Your task to perform on an android device: turn off smart reply in the gmail app Image 0: 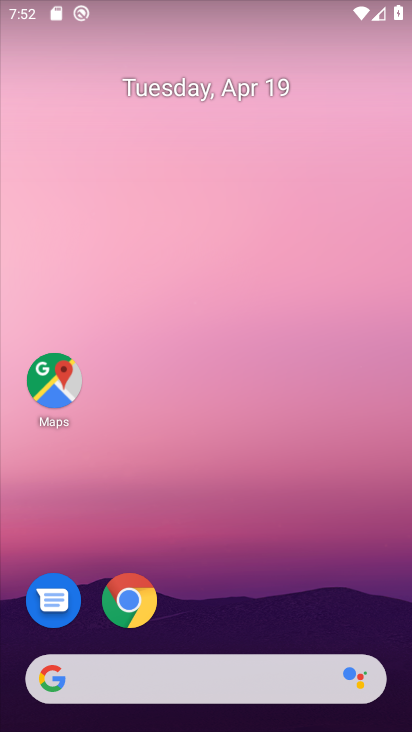
Step 0: drag from (362, 592) to (349, 95)
Your task to perform on an android device: turn off smart reply in the gmail app Image 1: 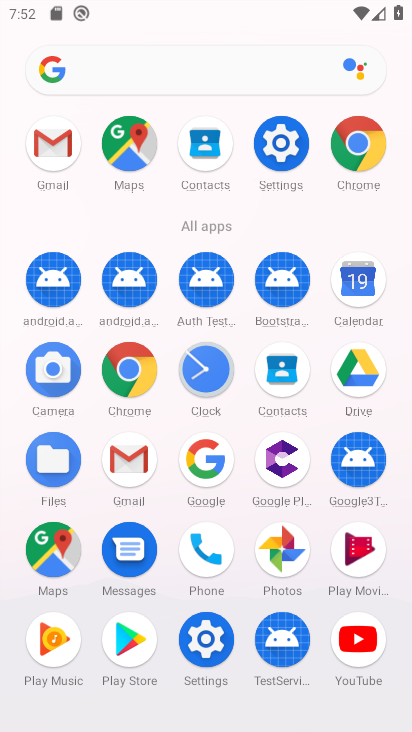
Step 1: click (133, 456)
Your task to perform on an android device: turn off smart reply in the gmail app Image 2: 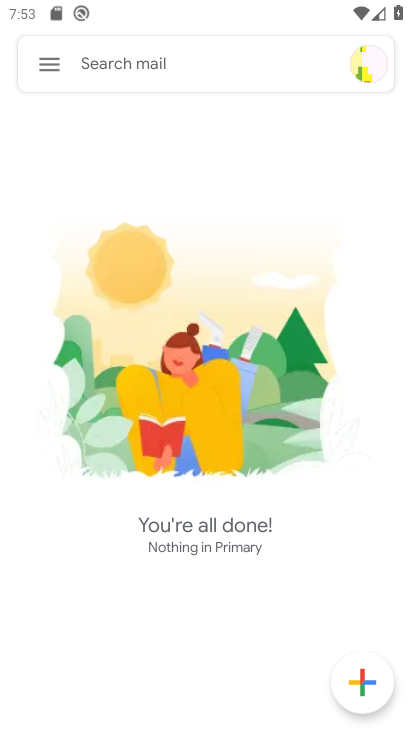
Step 2: click (57, 57)
Your task to perform on an android device: turn off smart reply in the gmail app Image 3: 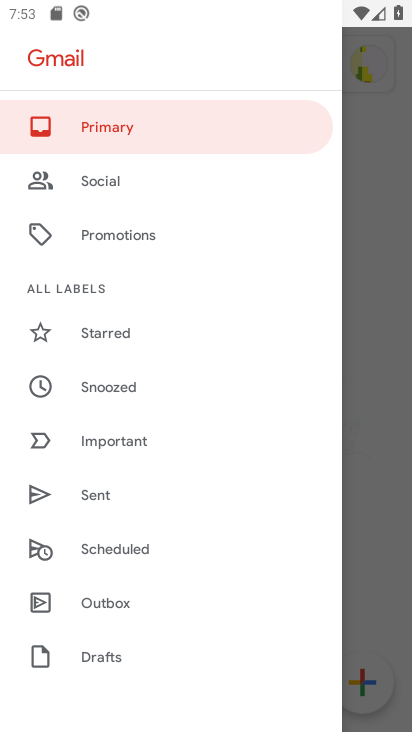
Step 3: drag from (270, 484) to (277, 306)
Your task to perform on an android device: turn off smart reply in the gmail app Image 4: 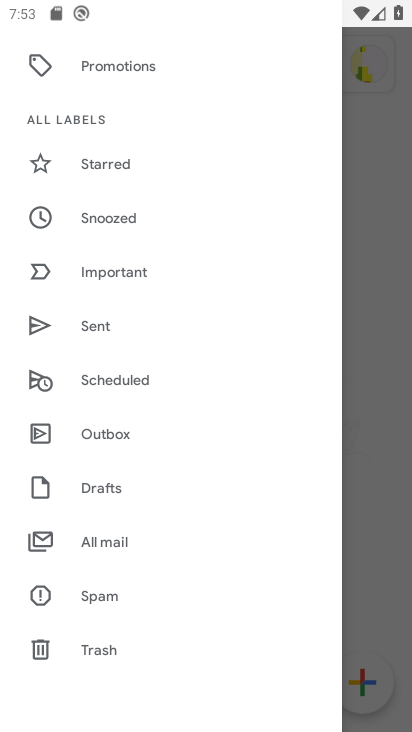
Step 4: drag from (287, 522) to (282, 343)
Your task to perform on an android device: turn off smart reply in the gmail app Image 5: 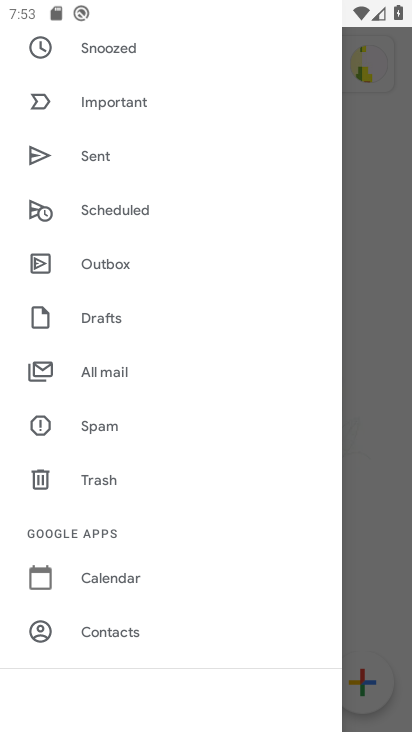
Step 5: drag from (291, 541) to (292, 321)
Your task to perform on an android device: turn off smart reply in the gmail app Image 6: 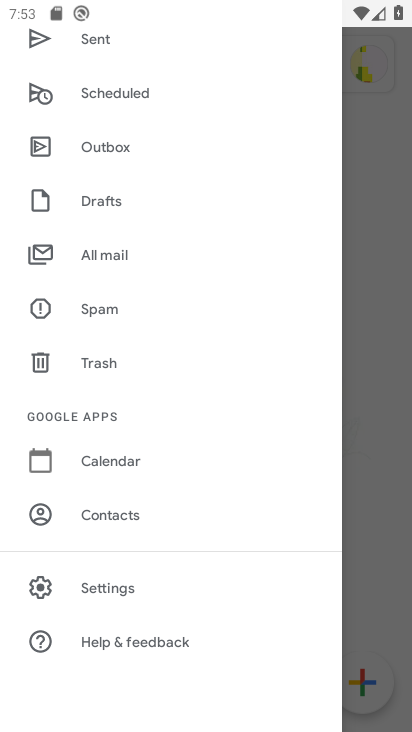
Step 6: click (120, 588)
Your task to perform on an android device: turn off smart reply in the gmail app Image 7: 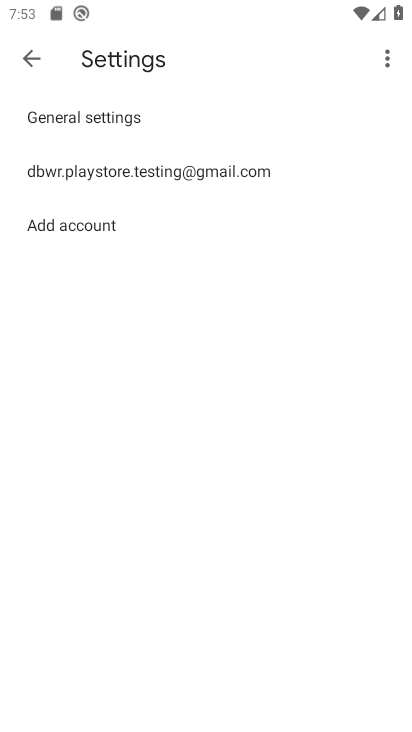
Step 7: click (155, 167)
Your task to perform on an android device: turn off smart reply in the gmail app Image 8: 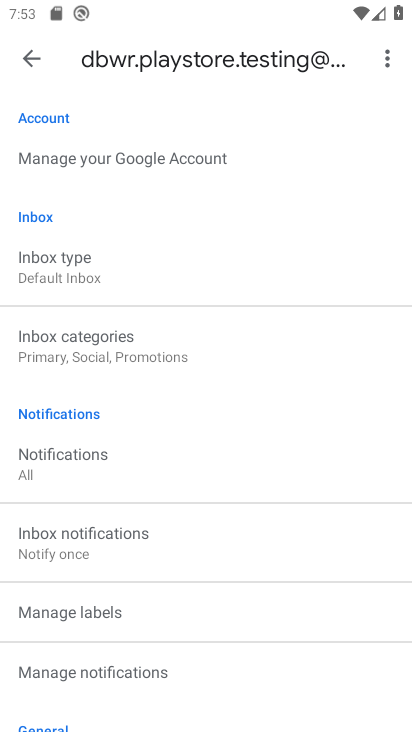
Step 8: drag from (327, 542) to (340, 340)
Your task to perform on an android device: turn off smart reply in the gmail app Image 9: 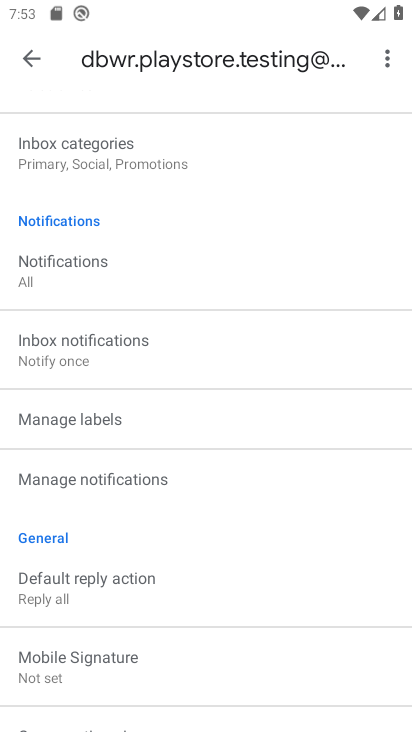
Step 9: drag from (336, 537) to (353, 307)
Your task to perform on an android device: turn off smart reply in the gmail app Image 10: 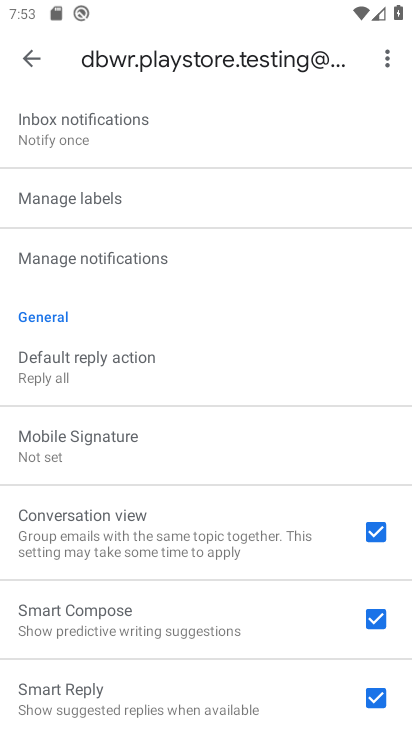
Step 10: drag from (301, 626) to (316, 428)
Your task to perform on an android device: turn off smart reply in the gmail app Image 11: 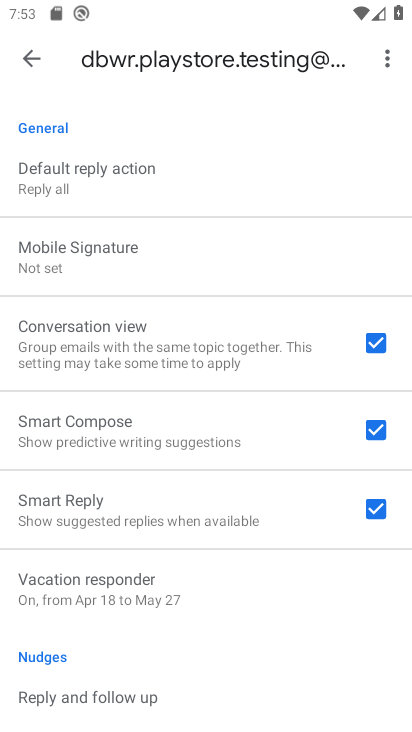
Step 11: drag from (277, 613) to (305, 414)
Your task to perform on an android device: turn off smart reply in the gmail app Image 12: 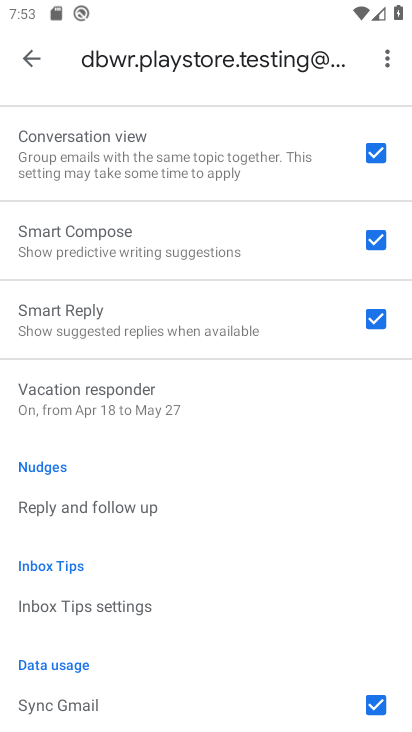
Step 12: drag from (271, 600) to (267, 398)
Your task to perform on an android device: turn off smart reply in the gmail app Image 13: 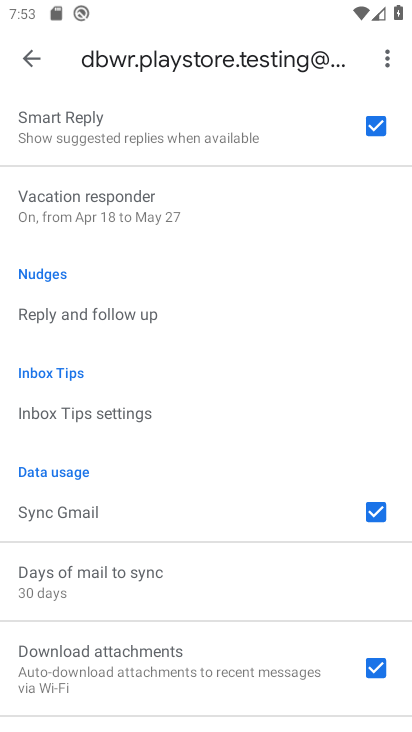
Step 13: drag from (266, 585) to (263, 379)
Your task to perform on an android device: turn off smart reply in the gmail app Image 14: 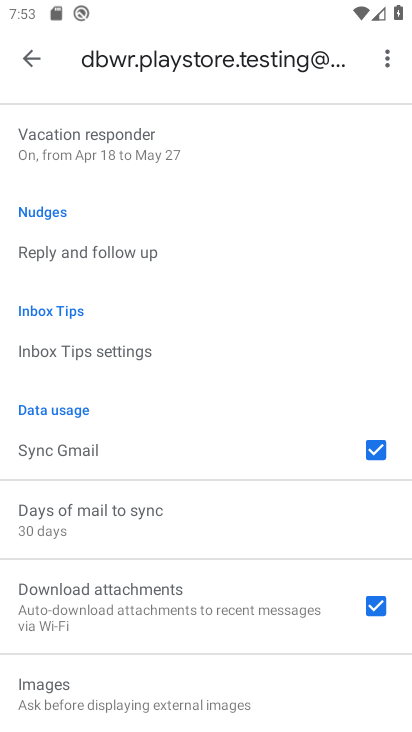
Step 14: drag from (293, 267) to (292, 468)
Your task to perform on an android device: turn off smart reply in the gmail app Image 15: 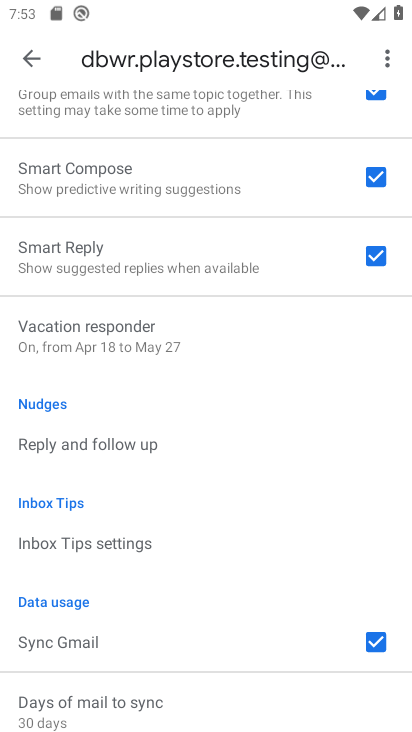
Step 15: drag from (301, 324) to (317, 499)
Your task to perform on an android device: turn off smart reply in the gmail app Image 16: 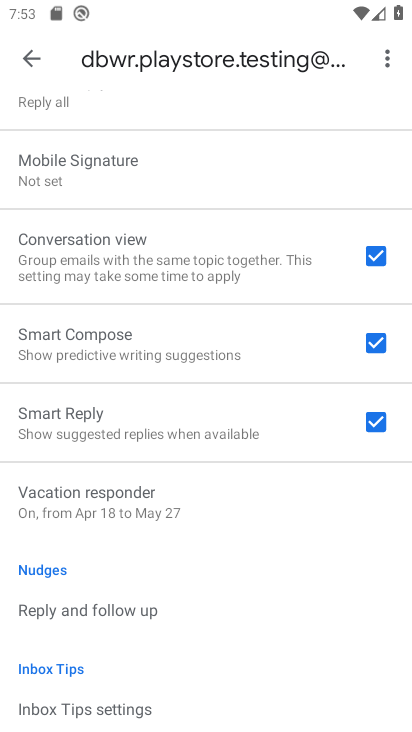
Step 16: drag from (302, 323) to (298, 501)
Your task to perform on an android device: turn off smart reply in the gmail app Image 17: 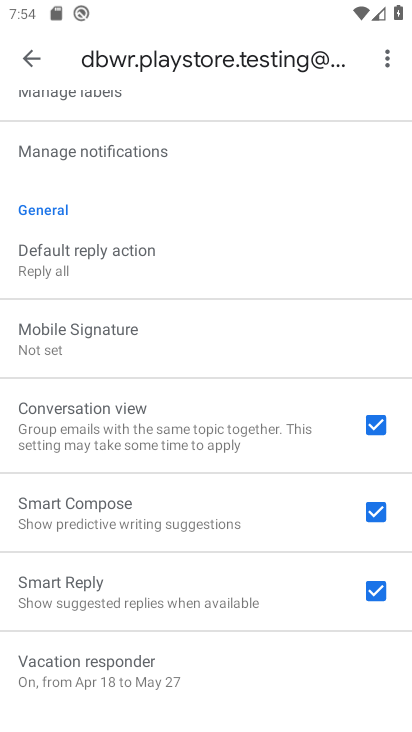
Step 17: click (374, 585)
Your task to perform on an android device: turn off smart reply in the gmail app Image 18: 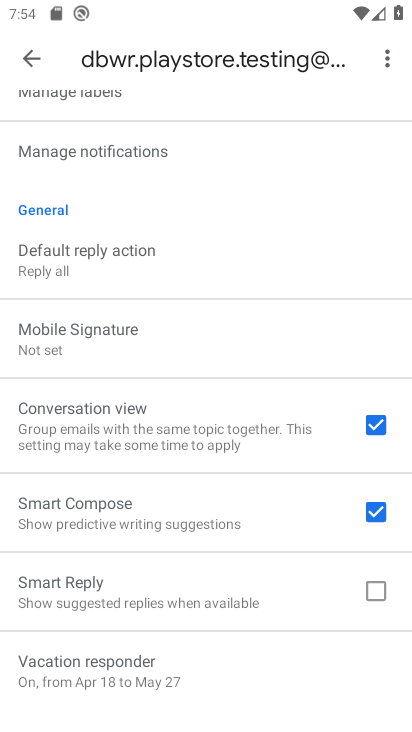
Step 18: task complete